Your task to perform on an android device: delete location history Image 0: 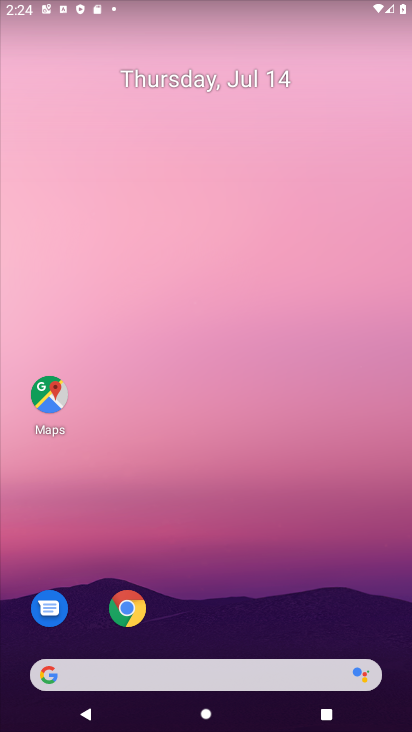
Step 0: click (51, 394)
Your task to perform on an android device: delete location history Image 1: 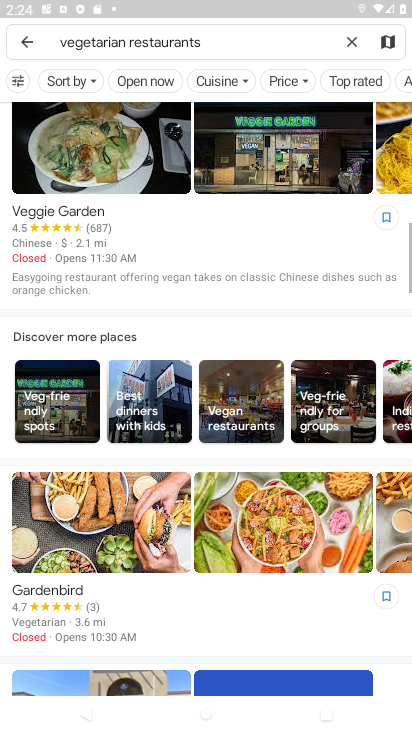
Step 1: click (351, 41)
Your task to perform on an android device: delete location history Image 2: 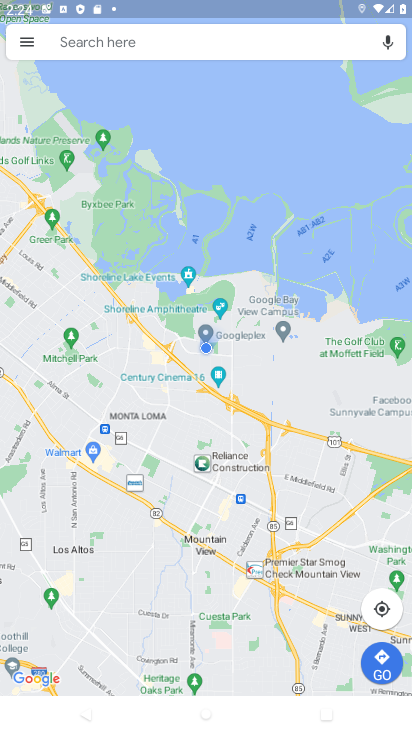
Step 2: click (23, 42)
Your task to perform on an android device: delete location history Image 3: 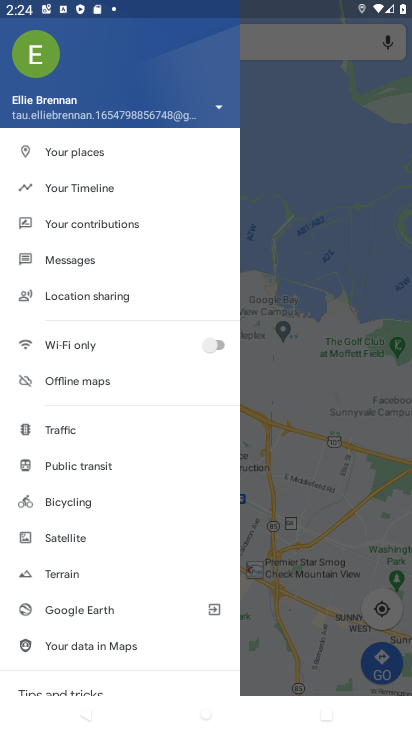
Step 3: drag from (160, 644) to (162, 310)
Your task to perform on an android device: delete location history Image 4: 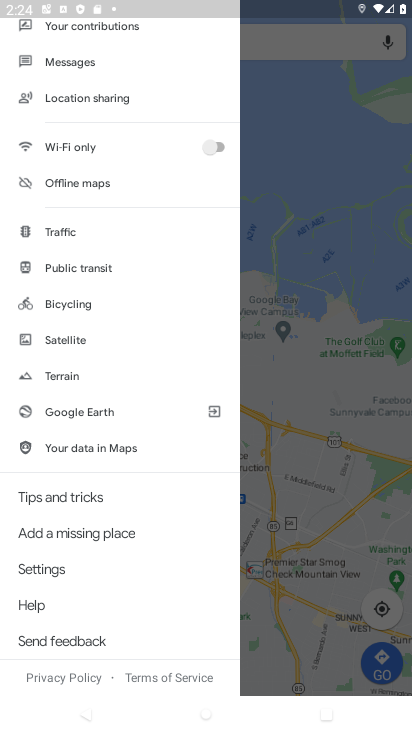
Step 4: click (38, 570)
Your task to perform on an android device: delete location history Image 5: 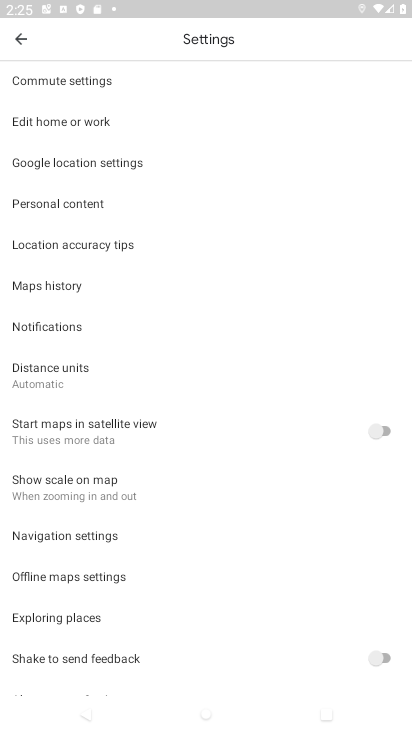
Step 5: click (54, 197)
Your task to perform on an android device: delete location history Image 6: 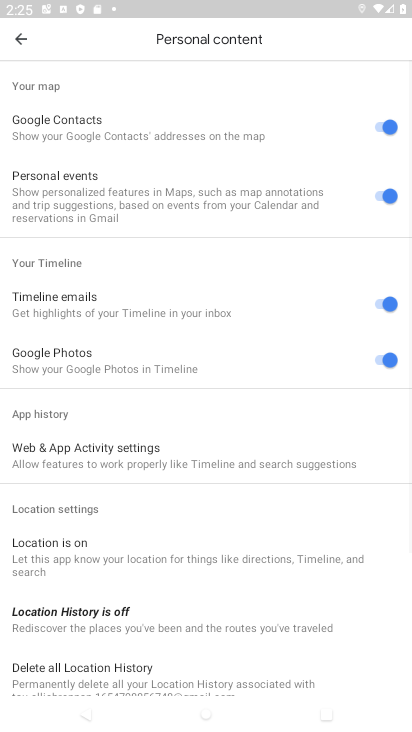
Step 6: drag from (217, 597) to (206, 272)
Your task to perform on an android device: delete location history Image 7: 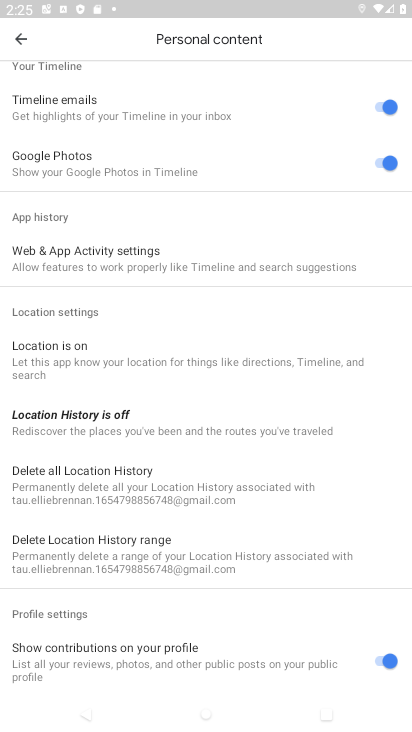
Step 7: click (85, 478)
Your task to perform on an android device: delete location history Image 8: 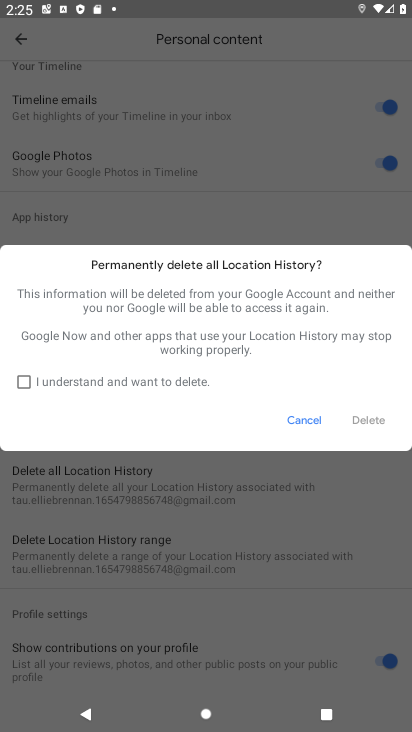
Step 8: click (18, 382)
Your task to perform on an android device: delete location history Image 9: 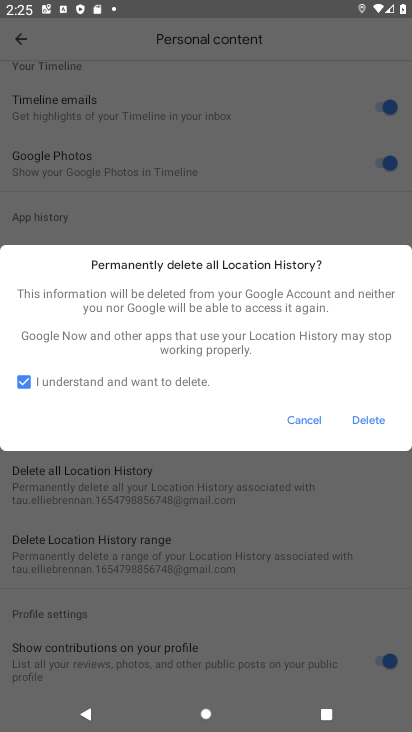
Step 9: click (363, 417)
Your task to perform on an android device: delete location history Image 10: 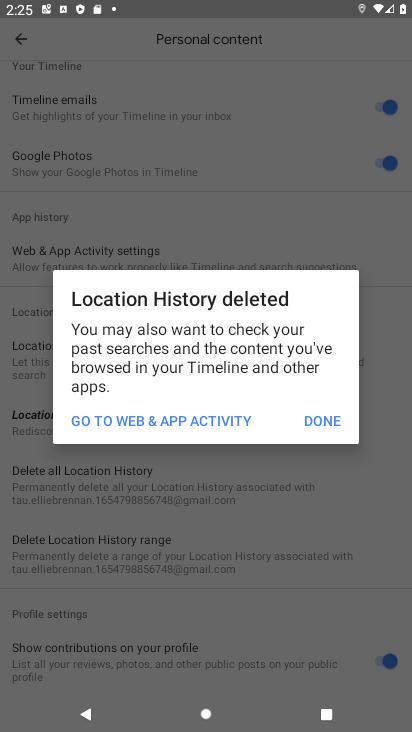
Step 10: click (312, 426)
Your task to perform on an android device: delete location history Image 11: 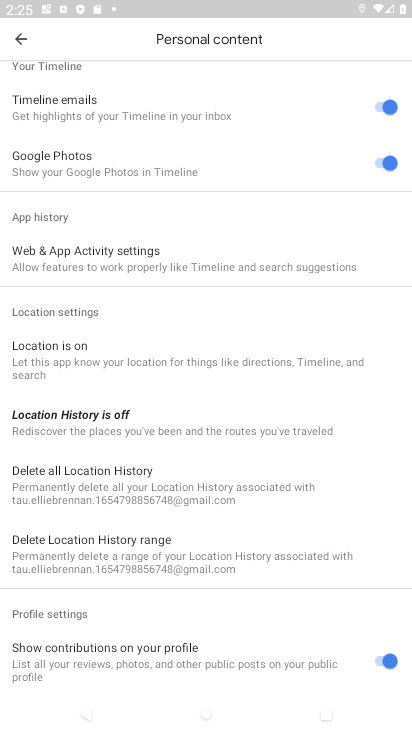
Step 11: task complete